Your task to perform on an android device: delete the emails in spam in the gmail app Image 0: 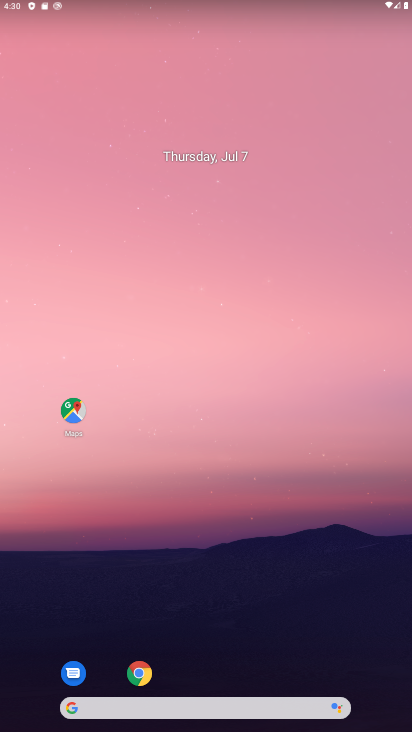
Step 0: drag from (266, 681) to (330, 177)
Your task to perform on an android device: delete the emails in spam in the gmail app Image 1: 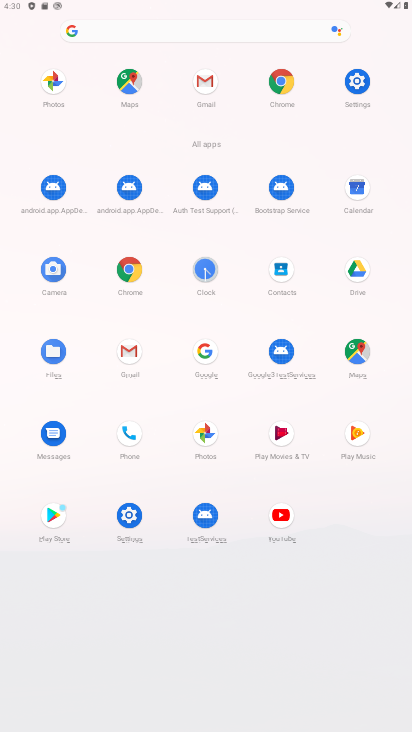
Step 1: click (120, 343)
Your task to perform on an android device: delete the emails in spam in the gmail app Image 2: 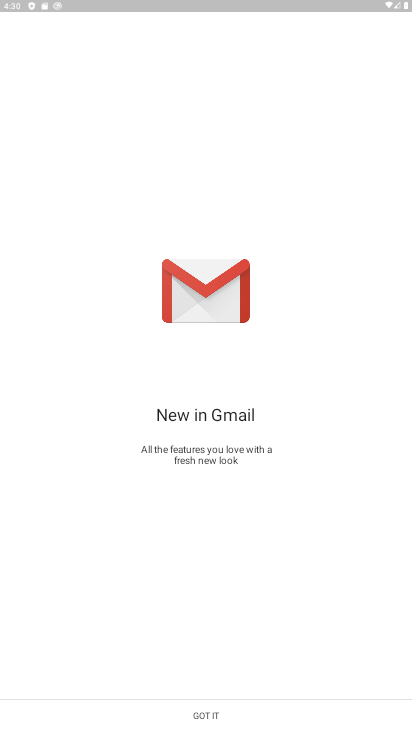
Step 2: click (198, 714)
Your task to perform on an android device: delete the emails in spam in the gmail app Image 3: 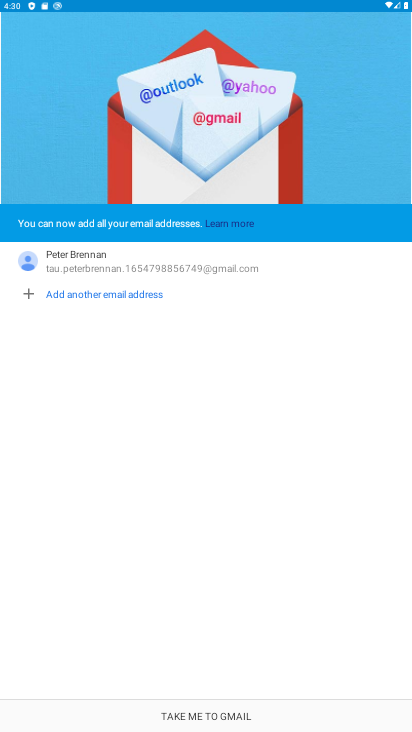
Step 3: click (230, 715)
Your task to perform on an android device: delete the emails in spam in the gmail app Image 4: 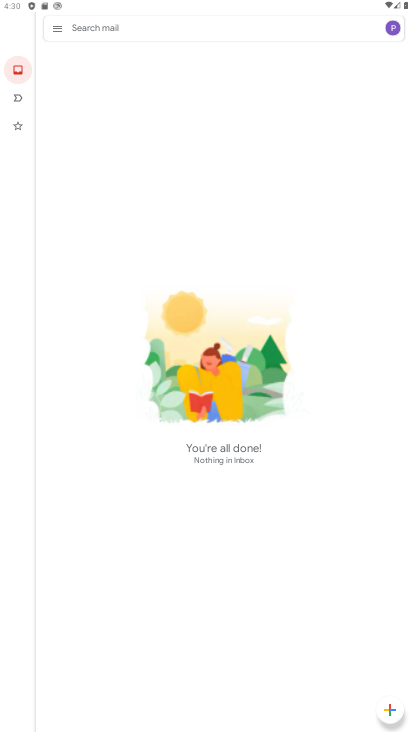
Step 4: click (49, 24)
Your task to perform on an android device: delete the emails in spam in the gmail app Image 5: 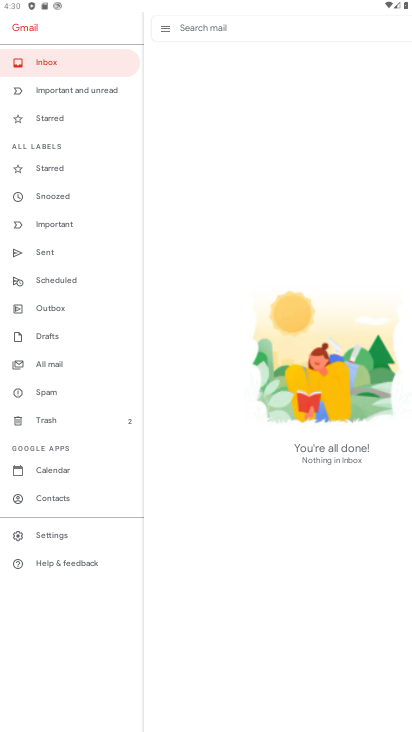
Step 5: click (66, 397)
Your task to perform on an android device: delete the emails in spam in the gmail app Image 6: 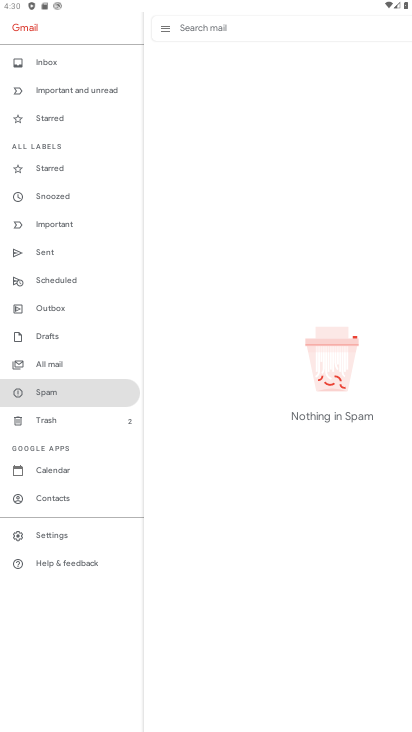
Step 6: task complete